Your task to perform on an android device: Open Google Chrome and click the shortcut for Amazon.com Image 0: 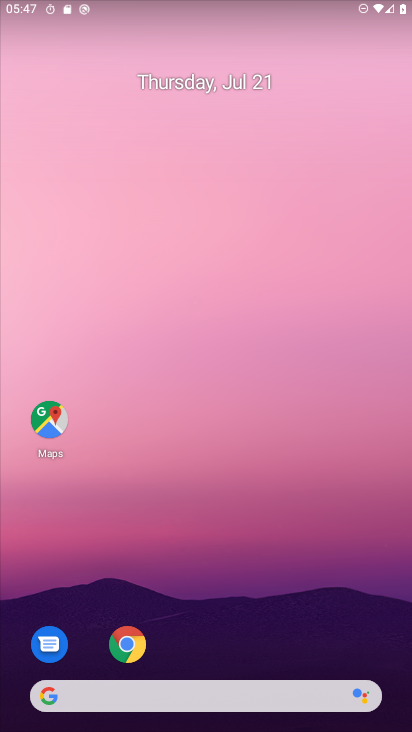
Step 0: click (125, 652)
Your task to perform on an android device: Open Google Chrome and click the shortcut for Amazon.com Image 1: 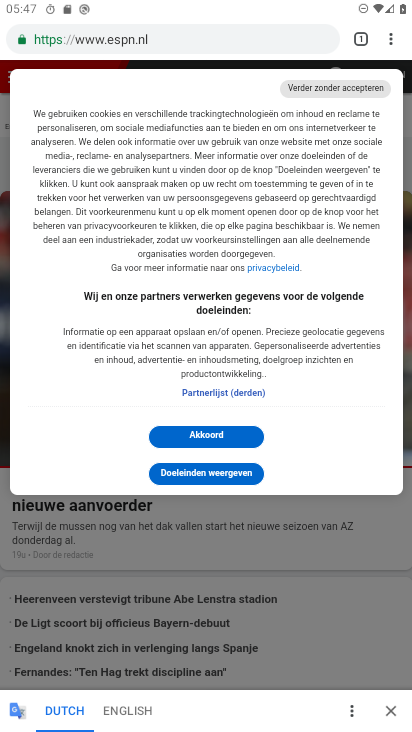
Step 1: click (193, 35)
Your task to perform on an android device: Open Google Chrome and click the shortcut for Amazon.com Image 2: 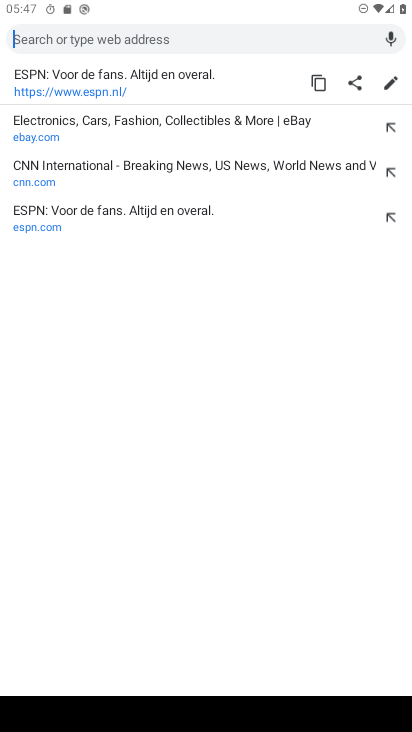
Step 2: type "www.amazon.com"
Your task to perform on an android device: Open Google Chrome and click the shortcut for Amazon.com Image 3: 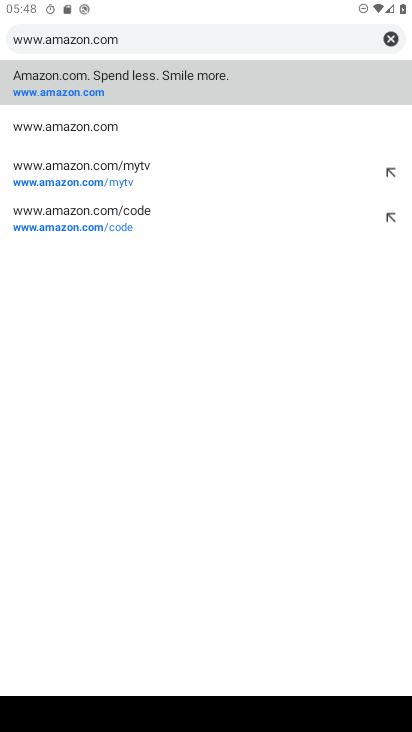
Step 3: click (61, 89)
Your task to perform on an android device: Open Google Chrome and click the shortcut for Amazon.com Image 4: 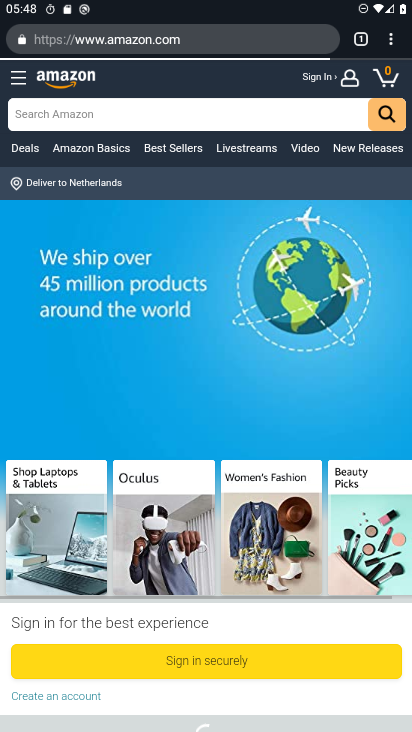
Step 4: task complete